Your task to perform on an android device: allow notifications from all sites in the chrome app Image 0: 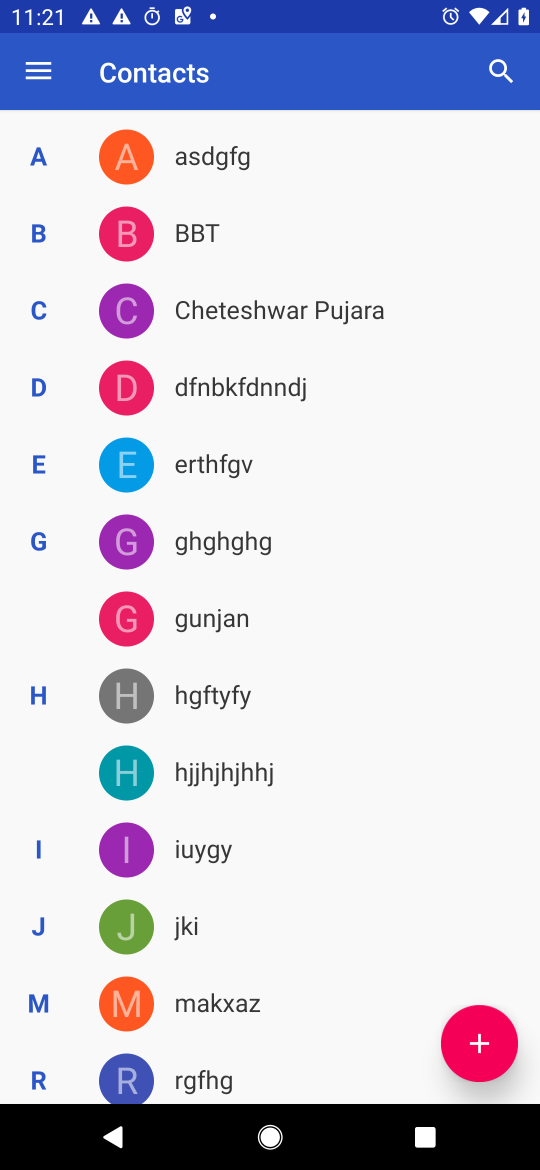
Step 0: drag from (259, 901) to (266, 515)
Your task to perform on an android device: allow notifications from all sites in the chrome app Image 1: 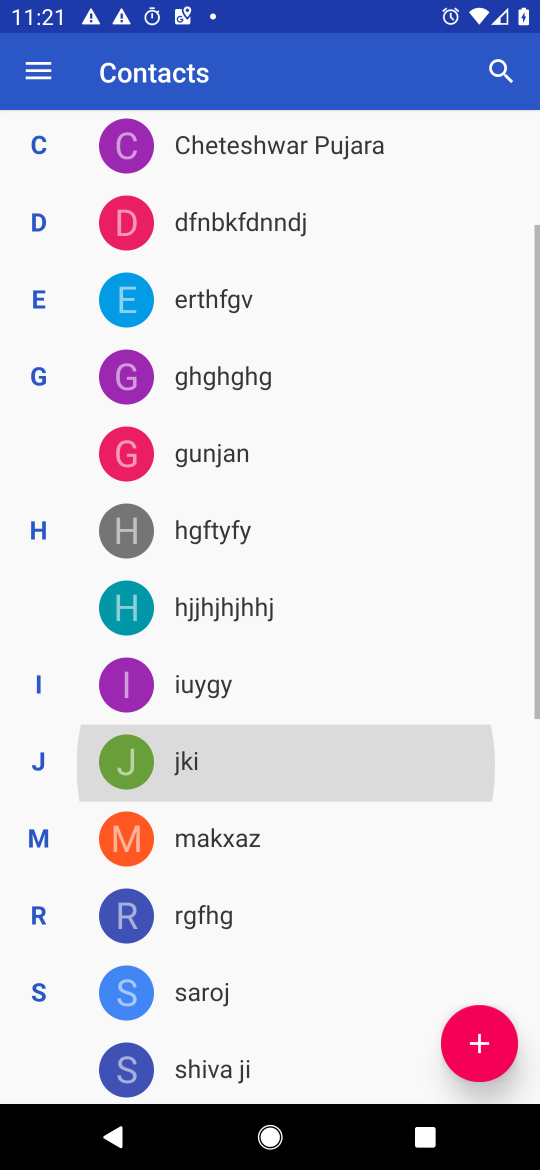
Step 1: drag from (257, 381) to (244, 913)
Your task to perform on an android device: allow notifications from all sites in the chrome app Image 2: 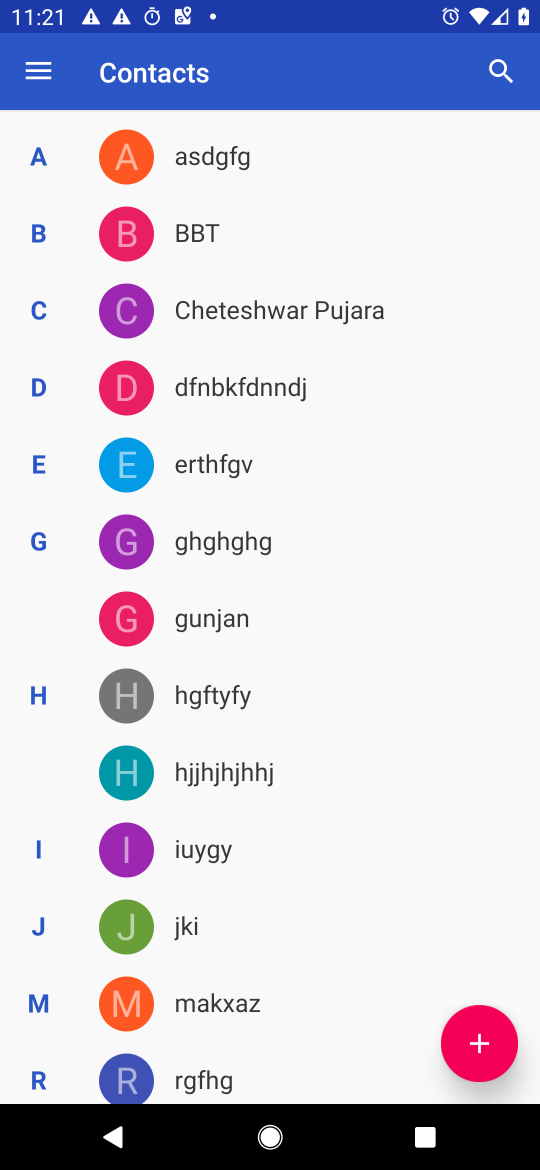
Step 2: press home button
Your task to perform on an android device: allow notifications from all sites in the chrome app Image 3: 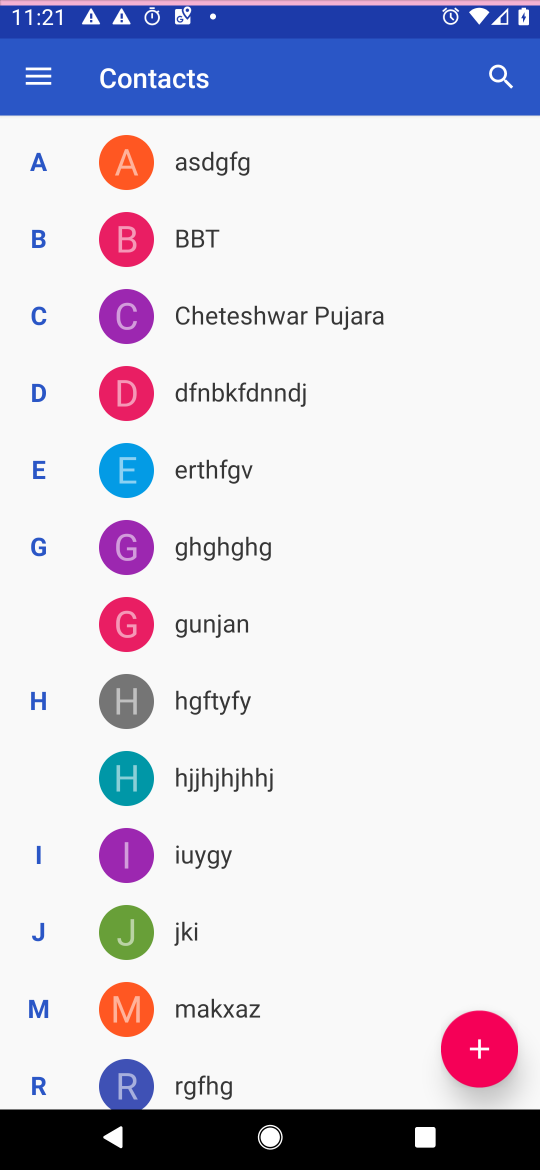
Step 3: drag from (106, 1045) to (284, 500)
Your task to perform on an android device: allow notifications from all sites in the chrome app Image 4: 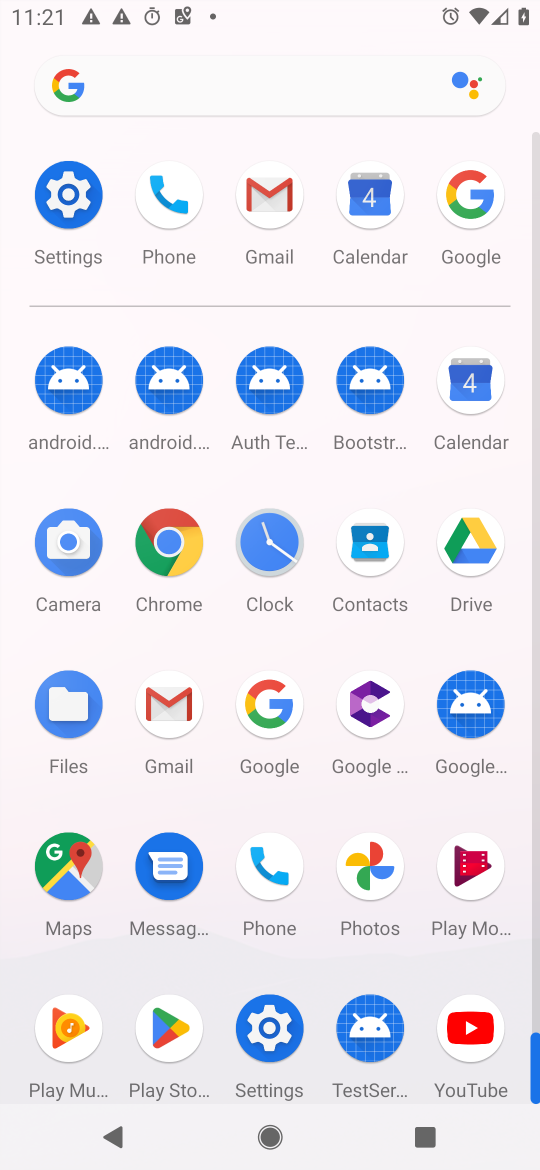
Step 4: click (178, 528)
Your task to perform on an android device: allow notifications from all sites in the chrome app Image 5: 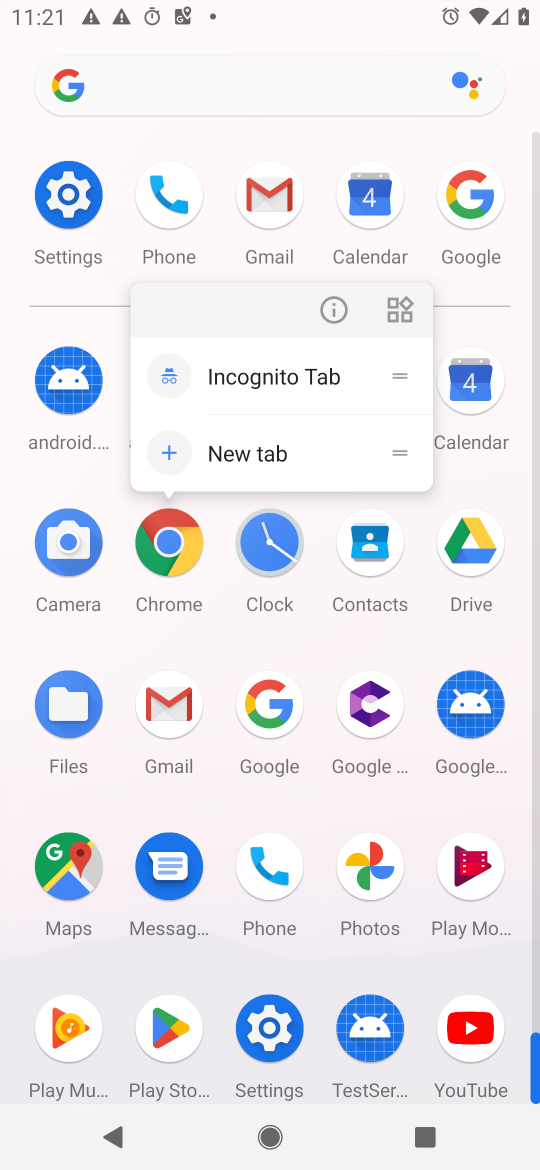
Step 5: click (336, 309)
Your task to perform on an android device: allow notifications from all sites in the chrome app Image 6: 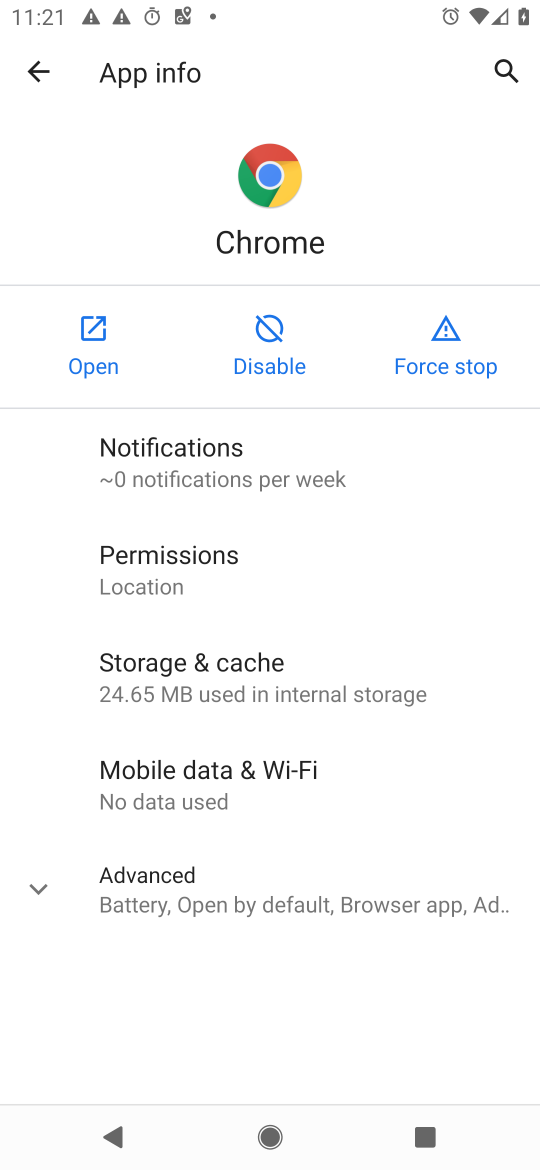
Step 6: click (84, 342)
Your task to perform on an android device: allow notifications from all sites in the chrome app Image 7: 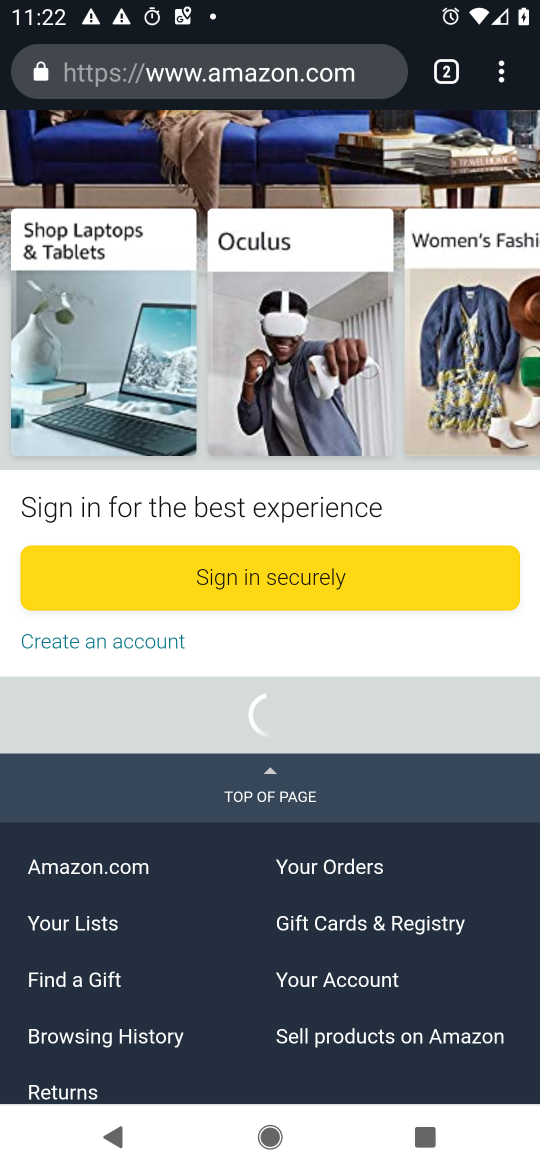
Step 7: drag from (471, 119) to (402, 550)
Your task to perform on an android device: allow notifications from all sites in the chrome app Image 8: 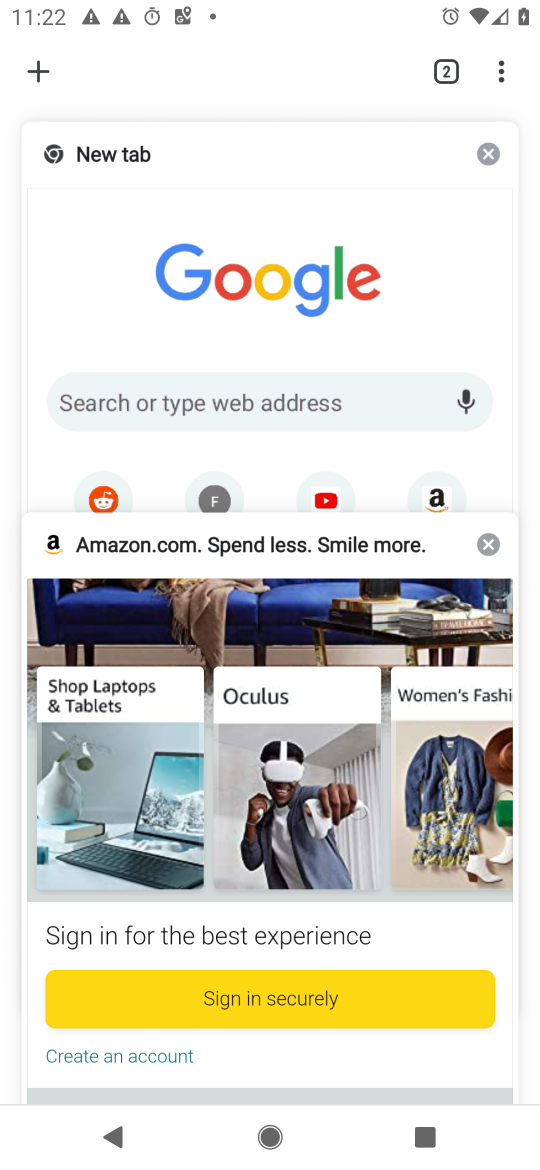
Step 8: click (369, 198)
Your task to perform on an android device: allow notifications from all sites in the chrome app Image 9: 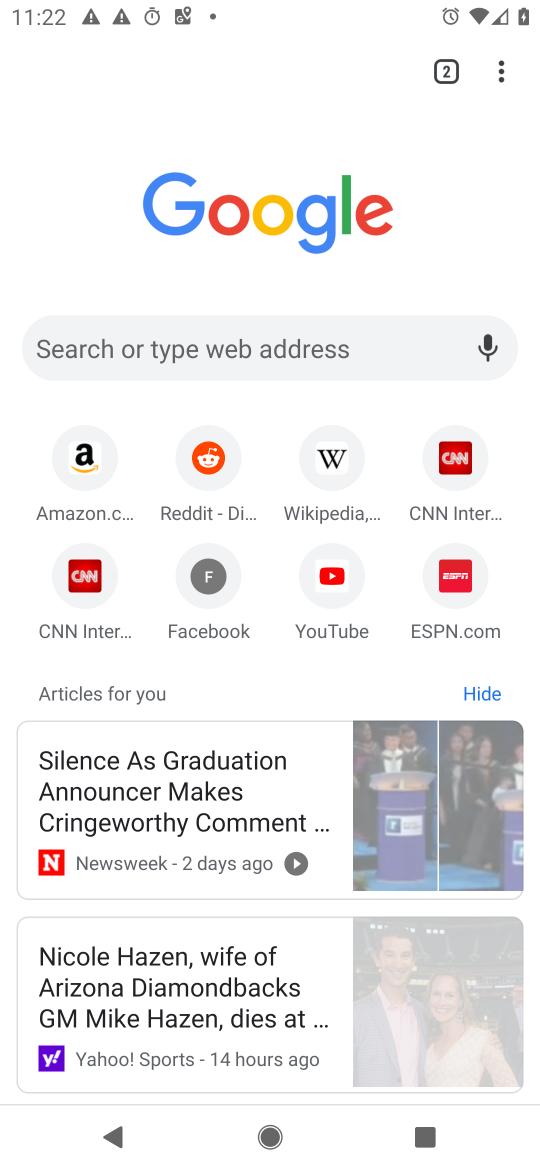
Step 9: drag from (502, 71) to (296, 597)
Your task to perform on an android device: allow notifications from all sites in the chrome app Image 10: 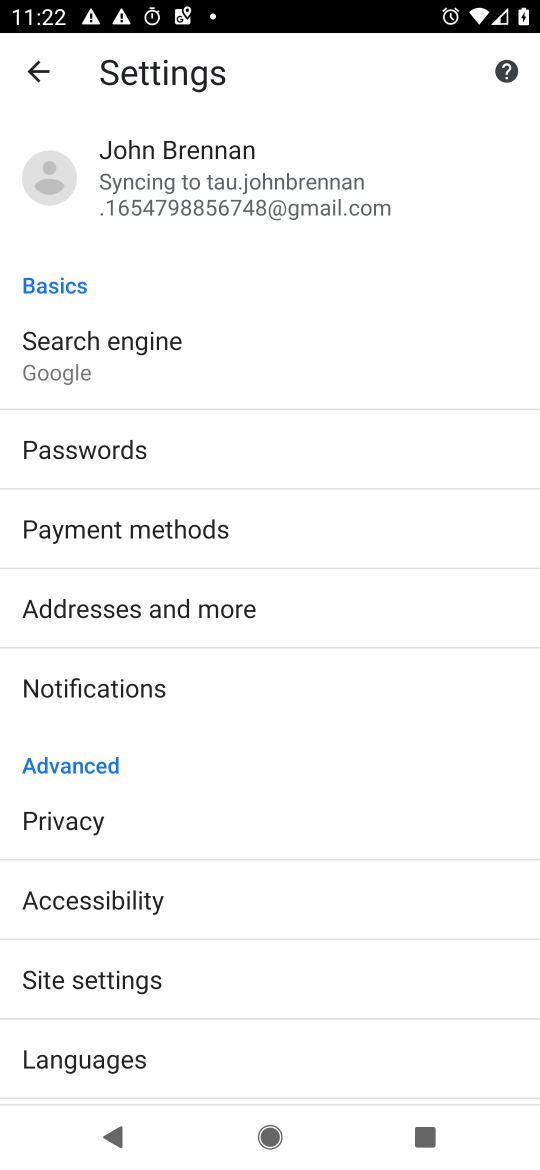
Step 10: drag from (242, 992) to (306, 483)
Your task to perform on an android device: allow notifications from all sites in the chrome app Image 11: 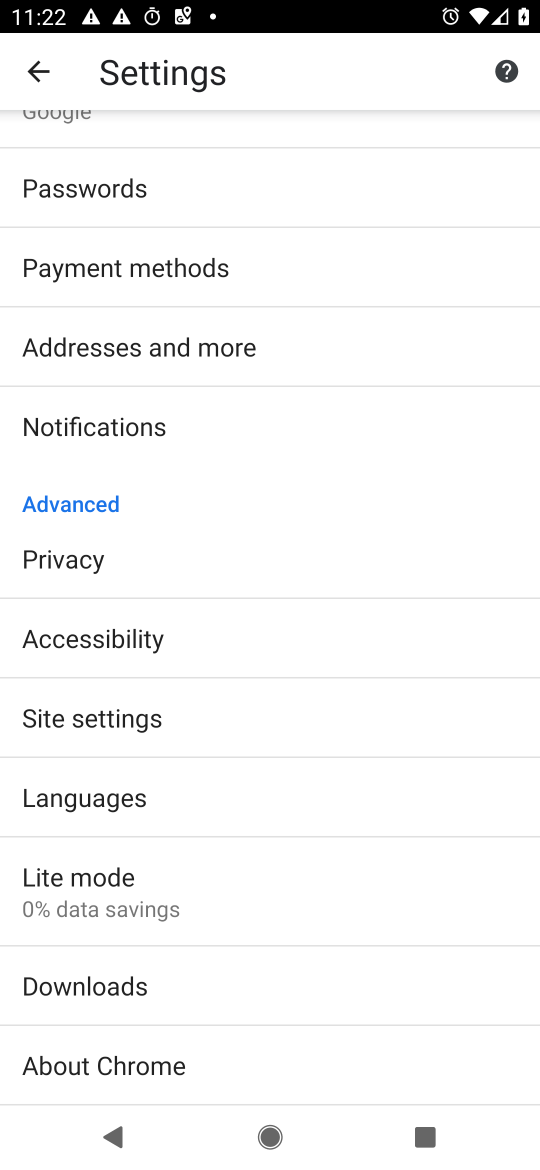
Step 11: click (146, 710)
Your task to perform on an android device: allow notifications from all sites in the chrome app Image 12: 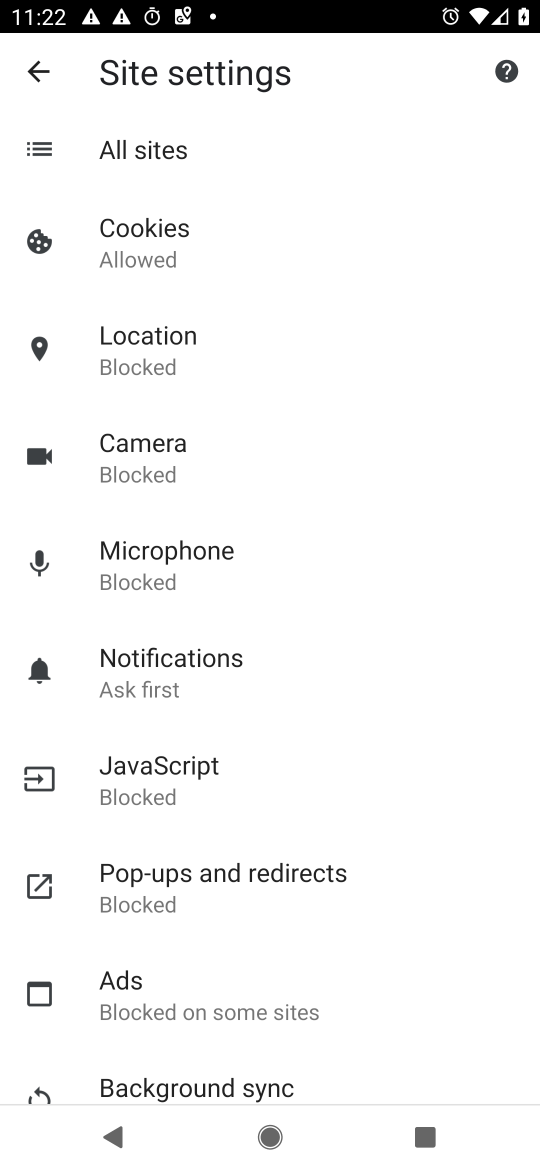
Step 12: click (188, 675)
Your task to perform on an android device: allow notifications from all sites in the chrome app Image 13: 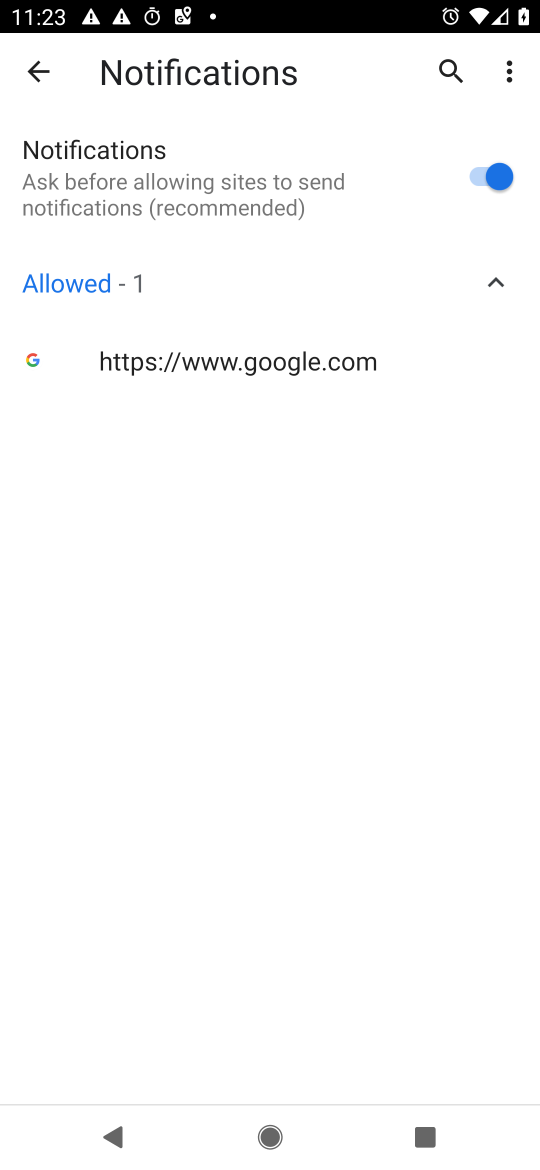
Step 13: task complete